Your task to perform on an android device: allow cookies in the chrome app Image 0: 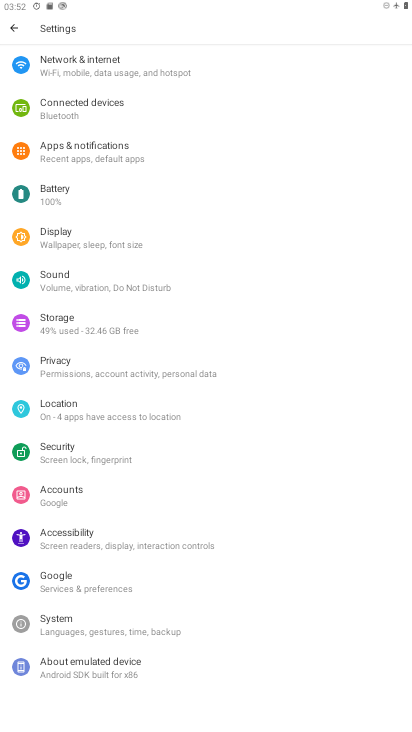
Step 0: press home button
Your task to perform on an android device: allow cookies in the chrome app Image 1: 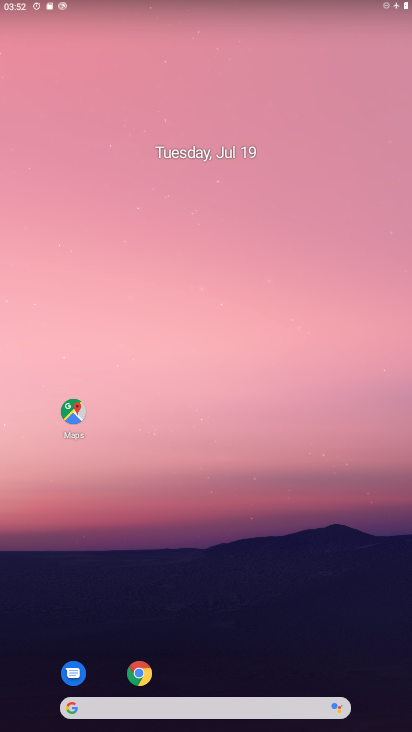
Step 1: click (135, 669)
Your task to perform on an android device: allow cookies in the chrome app Image 2: 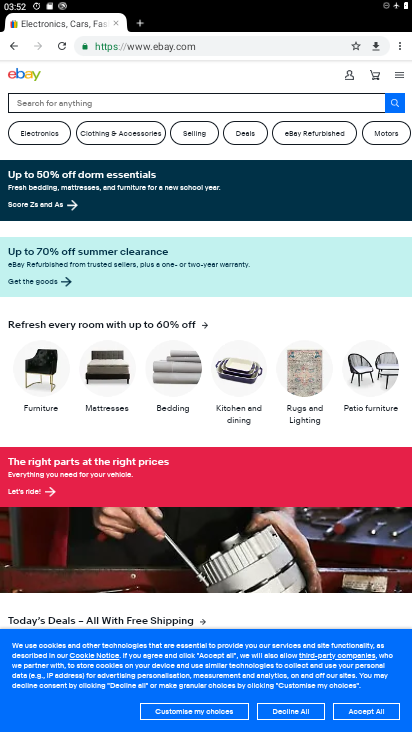
Step 2: click (397, 46)
Your task to perform on an android device: allow cookies in the chrome app Image 3: 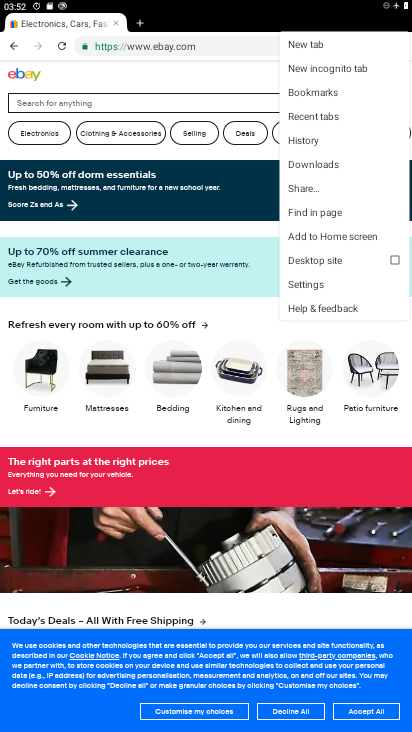
Step 3: click (305, 286)
Your task to perform on an android device: allow cookies in the chrome app Image 4: 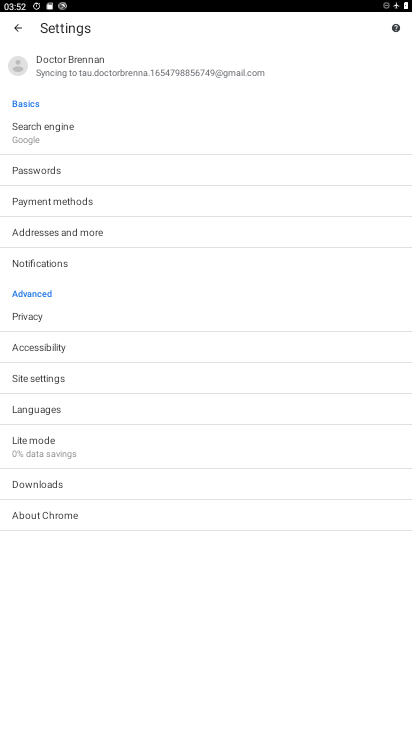
Step 4: click (43, 380)
Your task to perform on an android device: allow cookies in the chrome app Image 5: 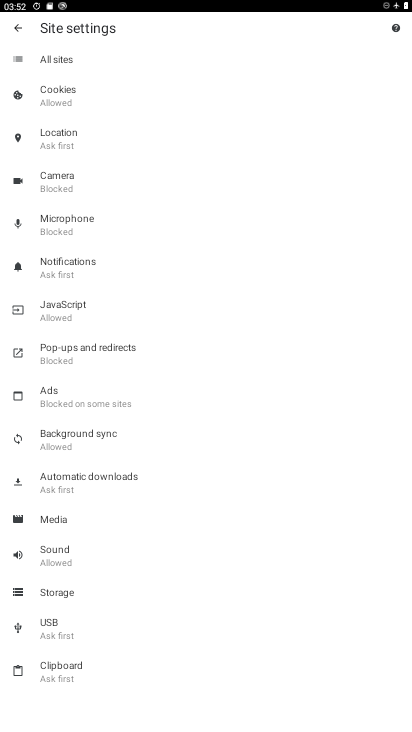
Step 5: click (72, 96)
Your task to perform on an android device: allow cookies in the chrome app Image 6: 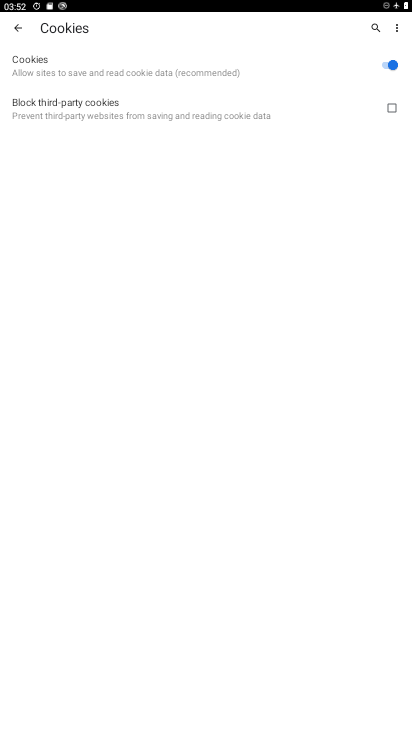
Step 6: task complete